Your task to perform on an android device: find which apps use the phone's location Image 0: 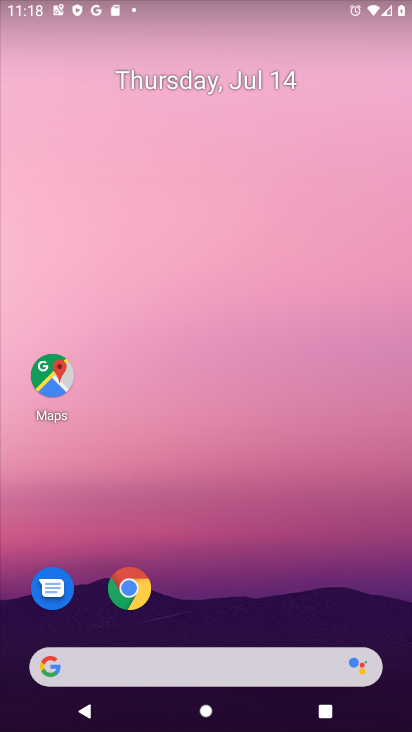
Step 0: press home button
Your task to perform on an android device: find which apps use the phone's location Image 1: 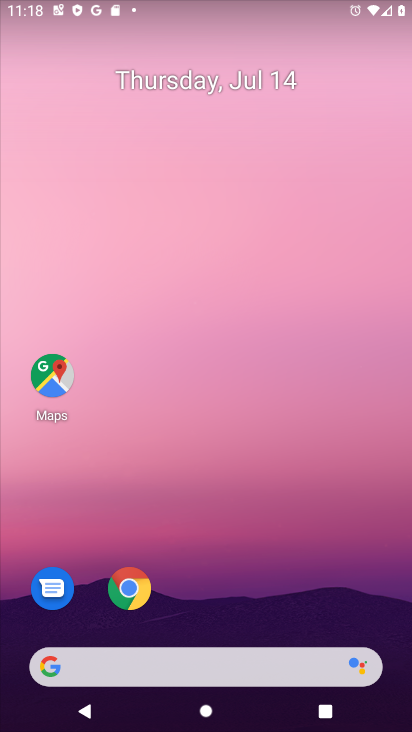
Step 1: drag from (297, 614) to (253, 61)
Your task to perform on an android device: find which apps use the phone's location Image 2: 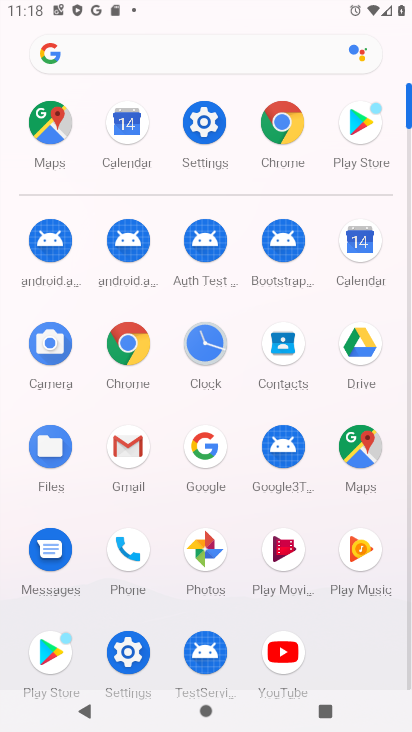
Step 2: click (128, 569)
Your task to perform on an android device: find which apps use the phone's location Image 3: 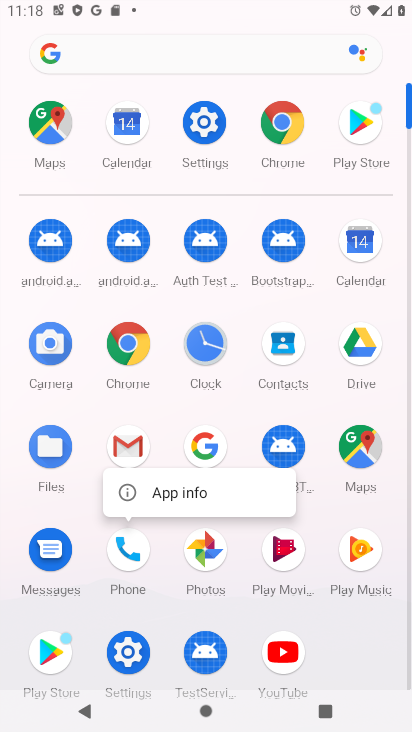
Step 3: click (138, 499)
Your task to perform on an android device: find which apps use the phone's location Image 4: 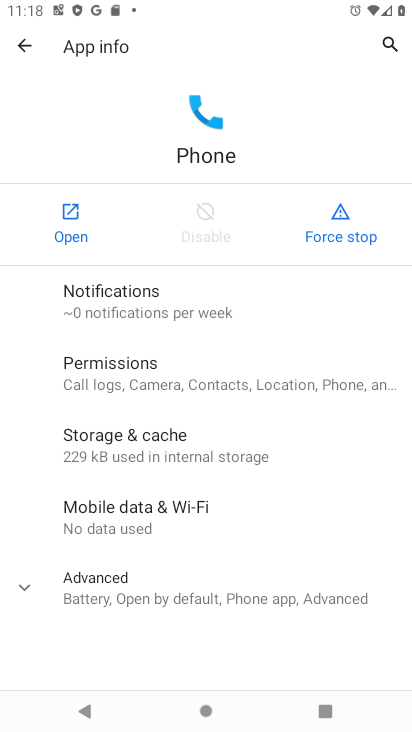
Step 4: click (101, 371)
Your task to perform on an android device: find which apps use the phone's location Image 5: 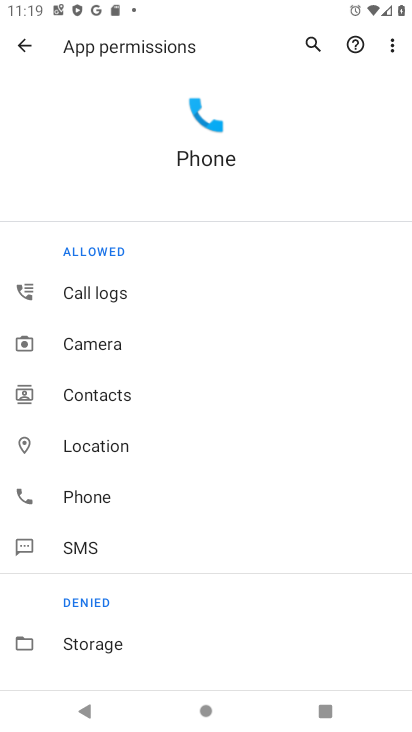
Step 5: click (127, 442)
Your task to perform on an android device: find which apps use the phone's location Image 6: 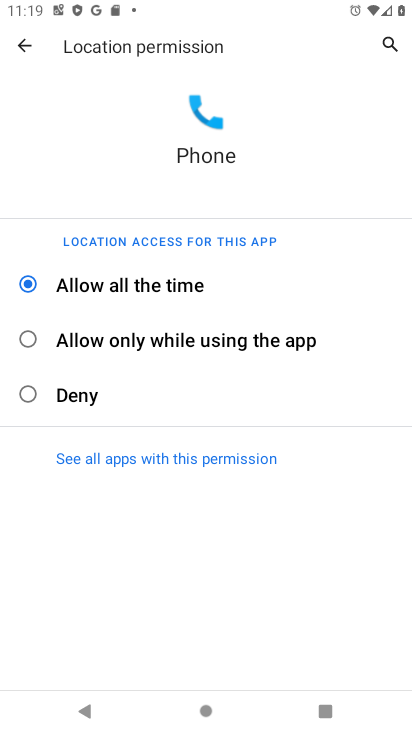
Step 6: click (140, 464)
Your task to perform on an android device: find which apps use the phone's location Image 7: 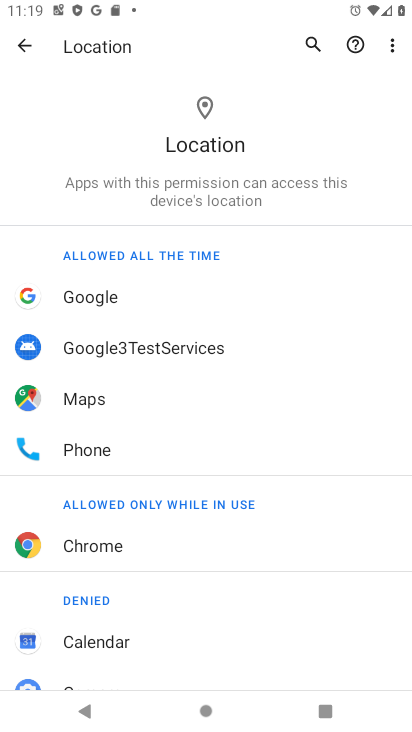
Step 7: task complete